Your task to perform on an android device: all mails in gmail Image 0: 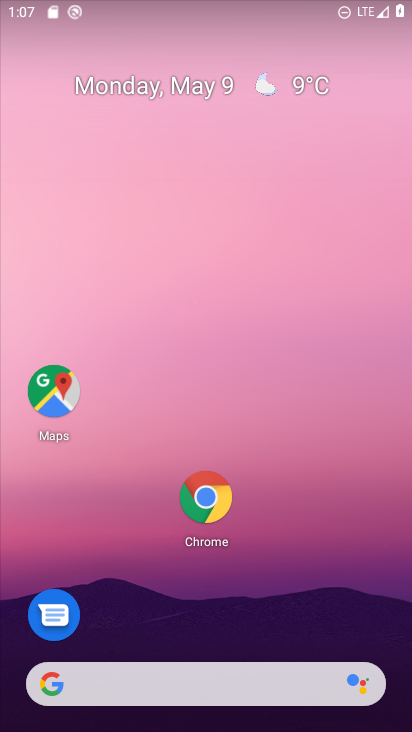
Step 0: drag from (362, 556) to (196, 48)
Your task to perform on an android device: all mails in gmail Image 1: 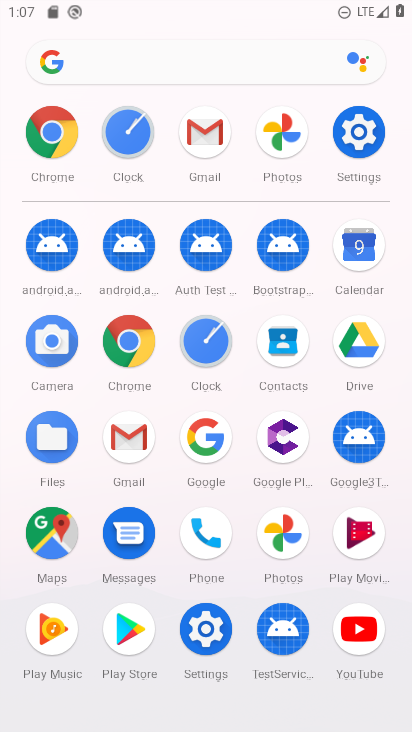
Step 1: click (205, 131)
Your task to perform on an android device: all mails in gmail Image 2: 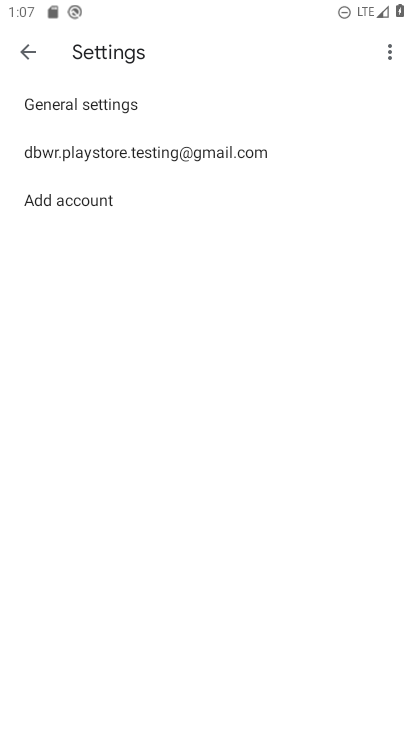
Step 2: click (27, 51)
Your task to perform on an android device: all mails in gmail Image 3: 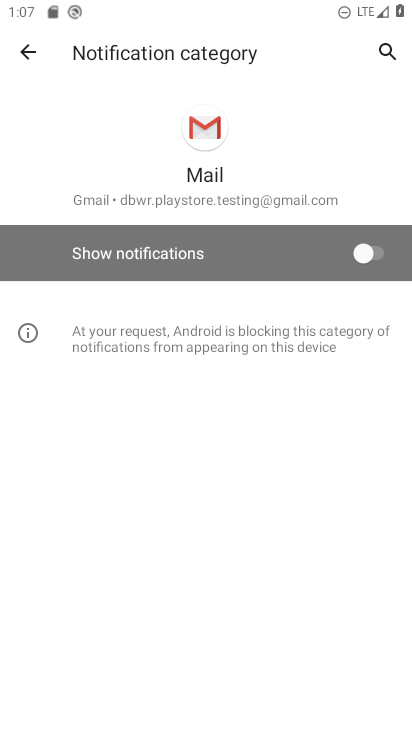
Step 3: click (34, 52)
Your task to perform on an android device: all mails in gmail Image 4: 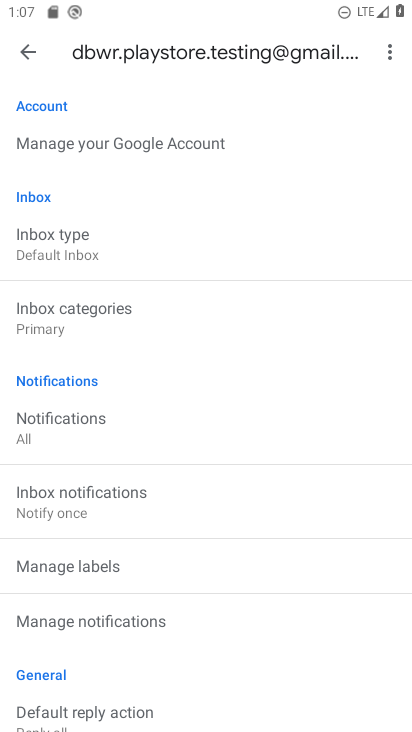
Step 4: click (31, 66)
Your task to perform on an android device: all mails in gmail Image 5: 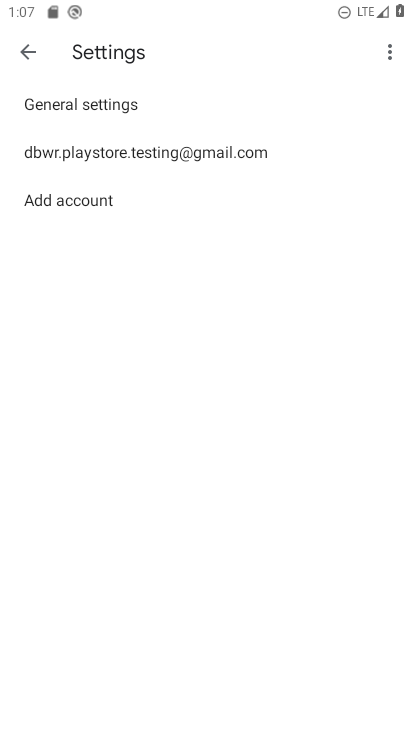
Step 5: click (30, 65)
Your task to perform on an android device: all mails in gmail Image 6: 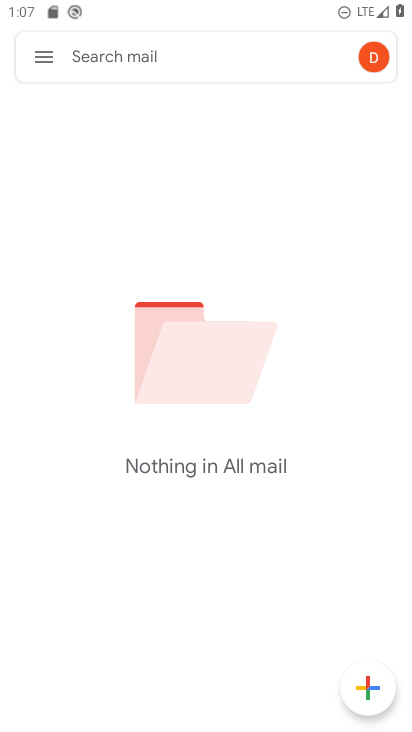
Step 6: task complete